Your task to perform on an android device: Open the map Image 0: 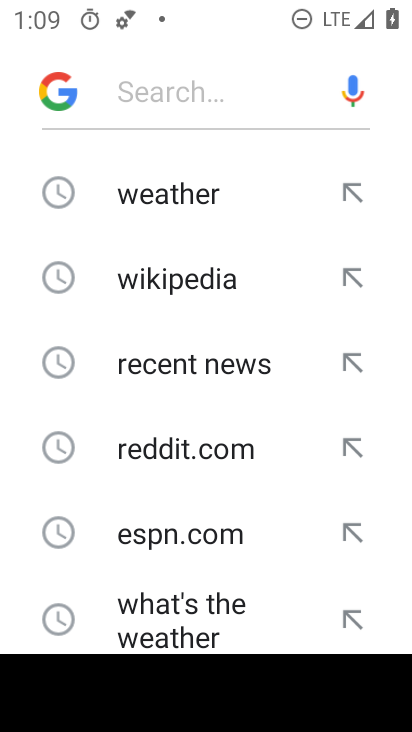
Step 0: press home button
Your task to perform on an android device: Open the map Image 1: 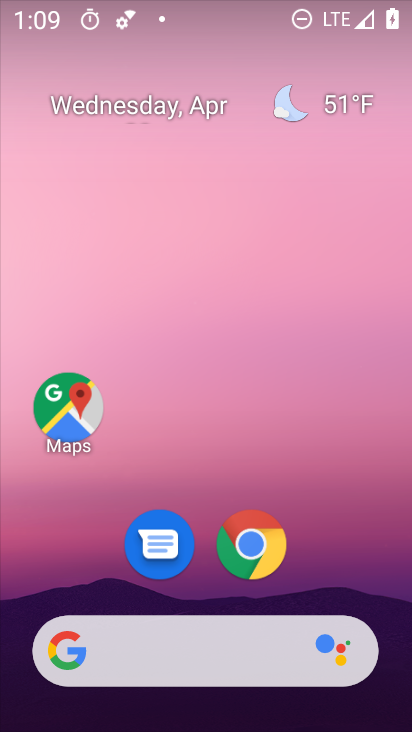
Step 1: drag from (367, 580) to (364, 182)
Your task to perform on an android device: Open the map Image 2: 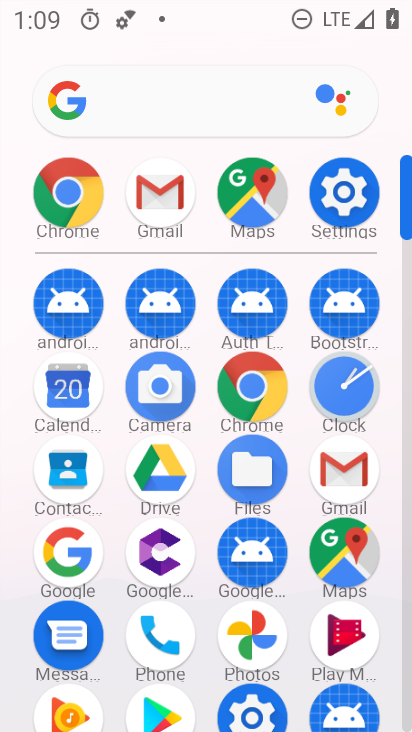
Step 2: drag from (393, 556) to (389, 420)
Your task to perform on an android device: Open the map Image 3: 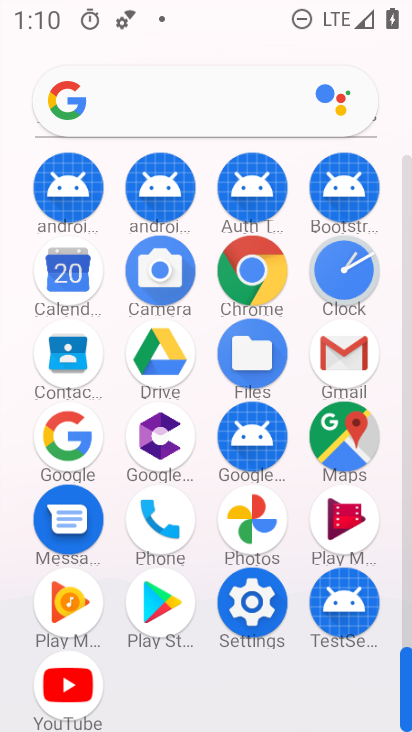
Step 3: click (343, 441)
Your task to perform on an android device: Open the map Image 4: 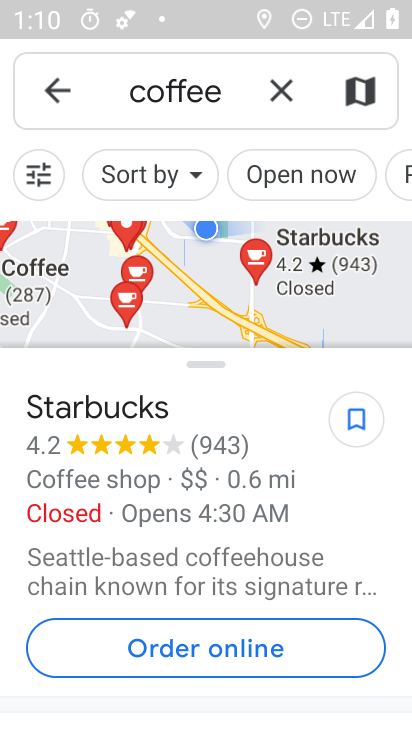
Step 4: task complete